Your task to perform on an android device: turn off translation in the chrome app Image 0: 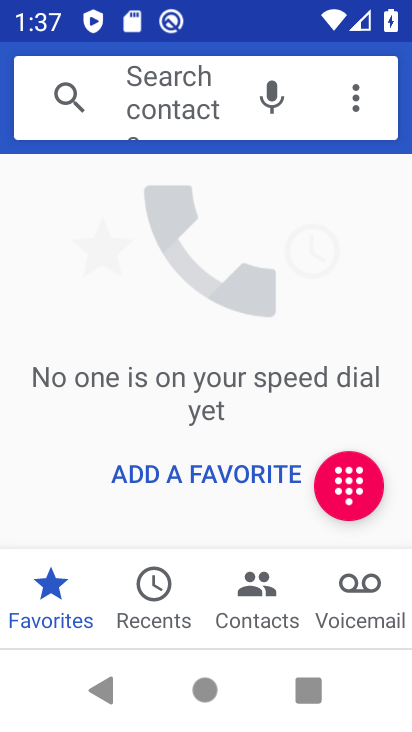
Step 0: press home button
Your task to perform on an android device: turn off translation in the chrome app Image 1: 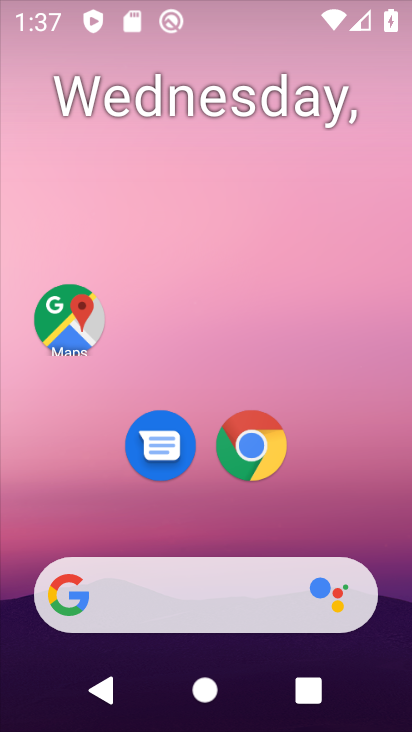
Step 1: drag from (375, 511) to (242, 129)
Your task to perform on an android device: turn off translation in the chrome app Image 2: 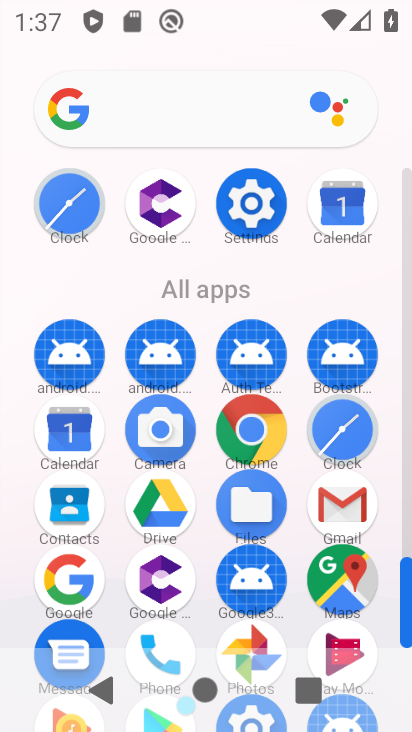
Step 2: click (243, 443)
Your task to perform on an android device: turn off translation in the chrome app Image 3: 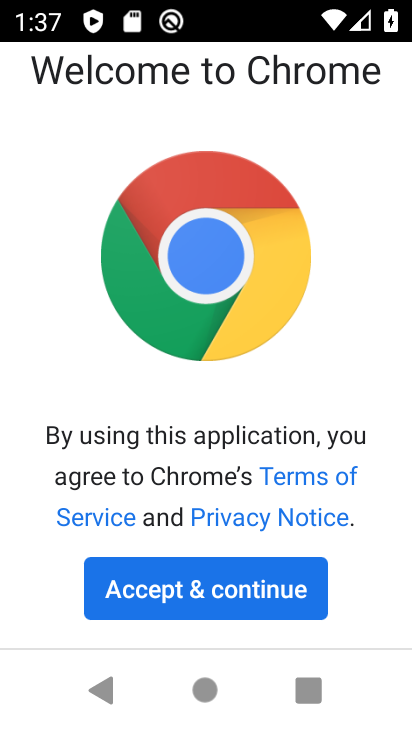
Step 3: click (212, 601)
Your task to perform on an android device: turn off translation in the chrome app Image 4: 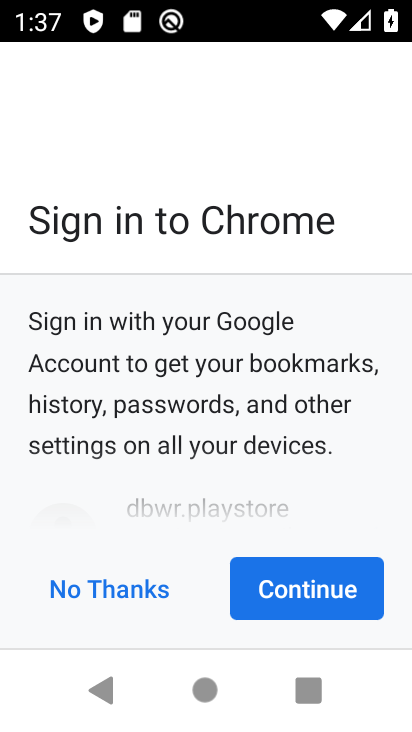
Step 4: click (313, 579)
Your task to perform on an android device: turn off translation in the chrome app Image 5: 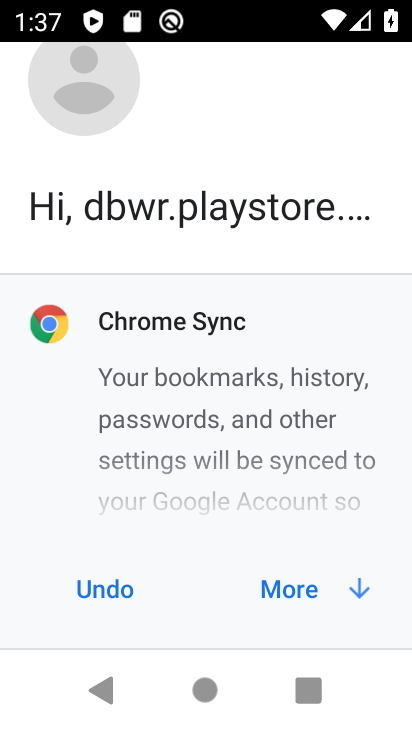
Step 5: click (313, 579)
Your task to perform on an android device: turn off translation in the chrome app Image 6: 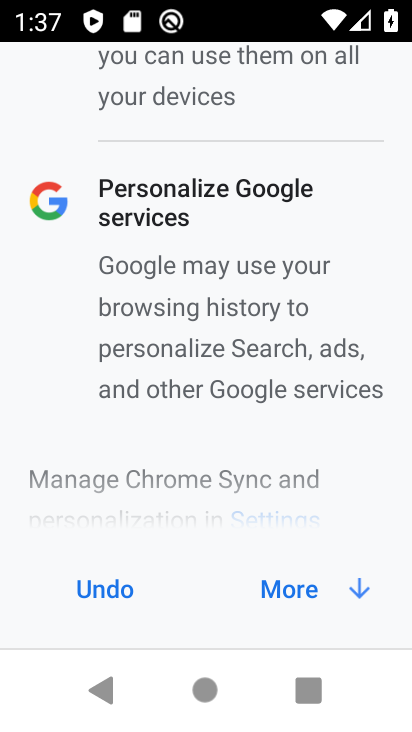
Step 6: click (313, 579)
Your task to perform on an android device: turn off translation in the chrome app Image 7: 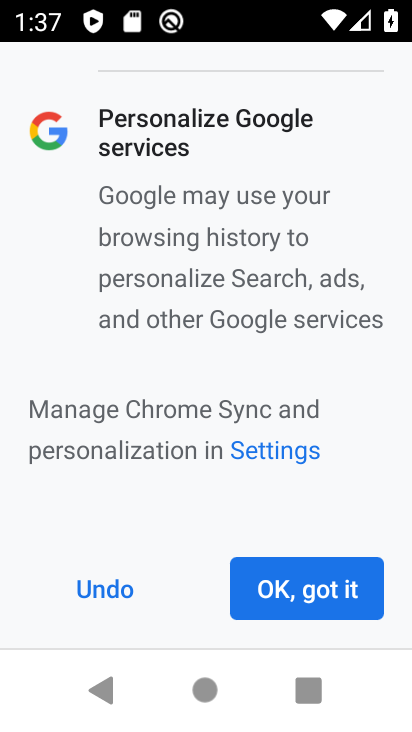
Step 7: click (313, 579)
Your task to perform on an android device: turn off translation in the chrome app Image 8: 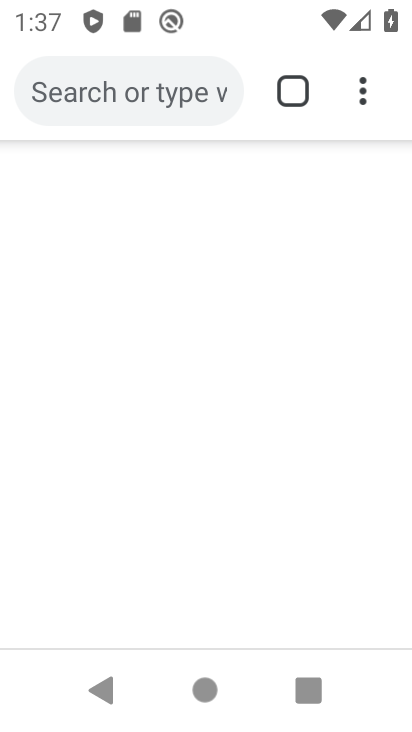
Step 8: drag from (353, 88) to (137, 466)
Your task to perform on an android device: turn off translation in the chrome app Image 9: 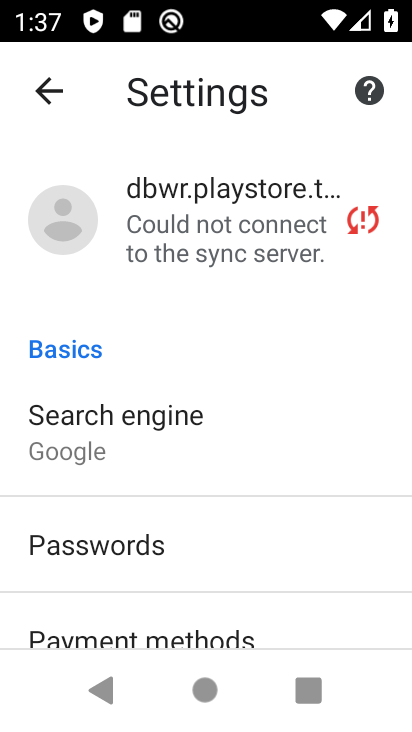
Step 9: drag from (323, 598) to (117, 168)
Your task to perform on an android device: turn off translation in the chrome app Image 10: 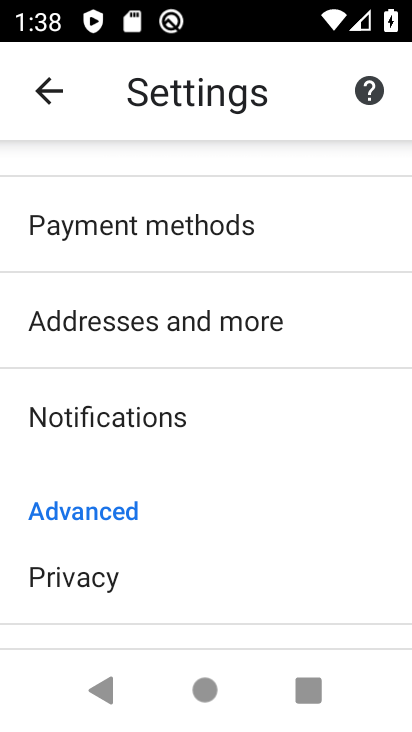
Step 10: drag from (180, 601) to (229, 247)
Your task to perform on an android device: turn off translation in the chrome app Image 11: 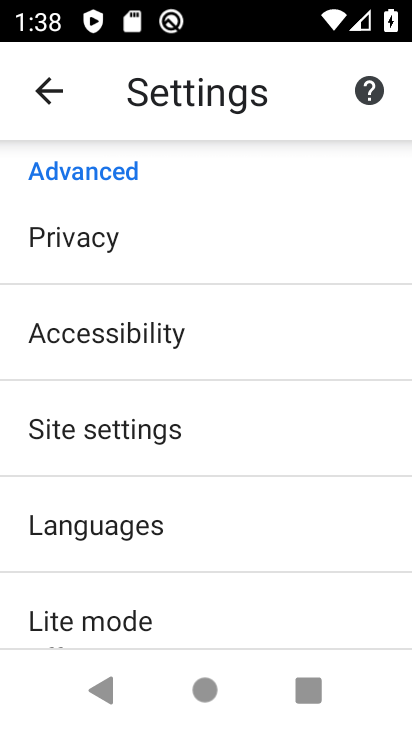
Step 11: click (184, 523)
Your task to perform on an android device: turn off translation in the chrome app Image 12: 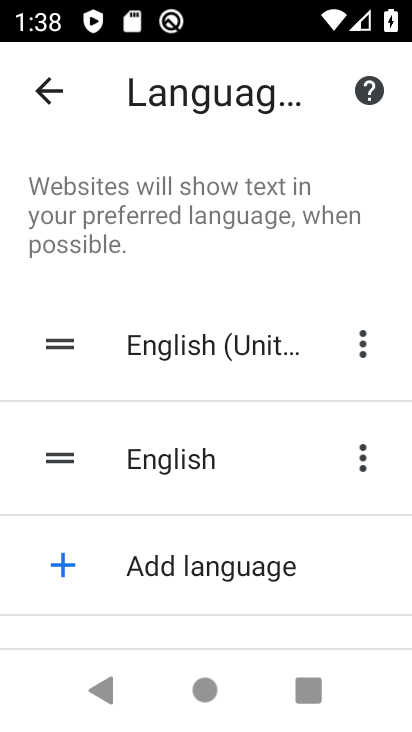
Step 12: drag from (201, 563) to (200, 228)
Your task to perform on an android device: turn off translation in the chrome app Image 13: 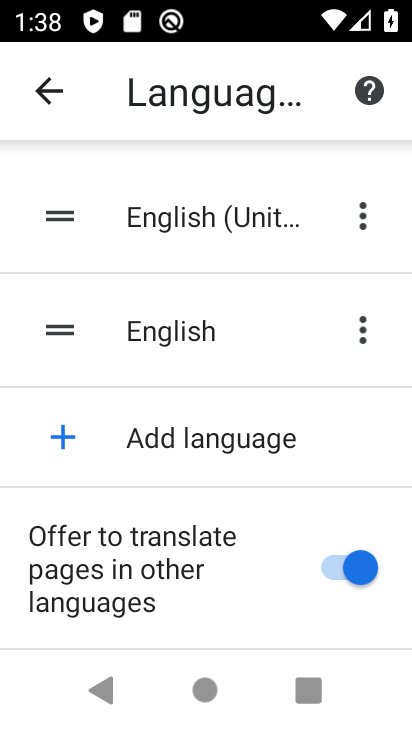
Step 13: click (187, 537)
Your task to perform on an android device: turn off translation in the chrome app Image 14: 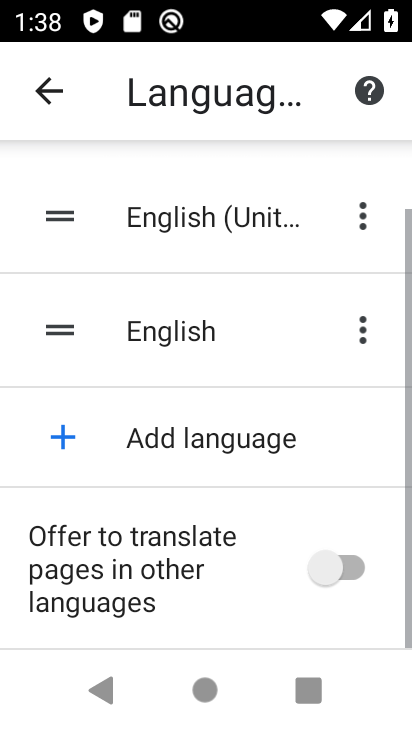
Step 14: task complete